Your task to perform on an android device: Open display settings Image 0: 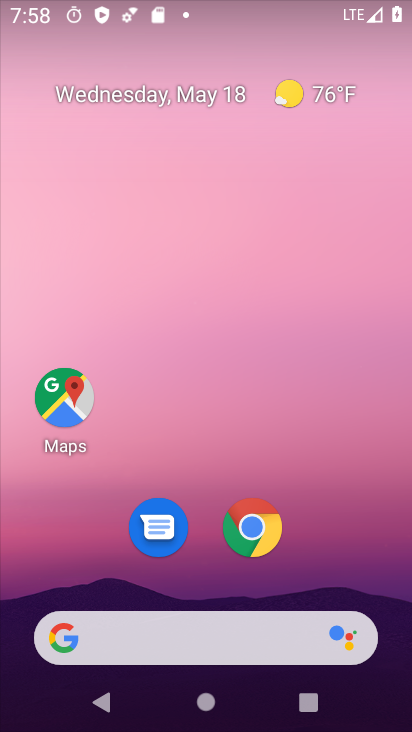
Step 0: drag from (391, 694) to (354, 136)
Your task to perform on an android device: Open display settings Image 1: 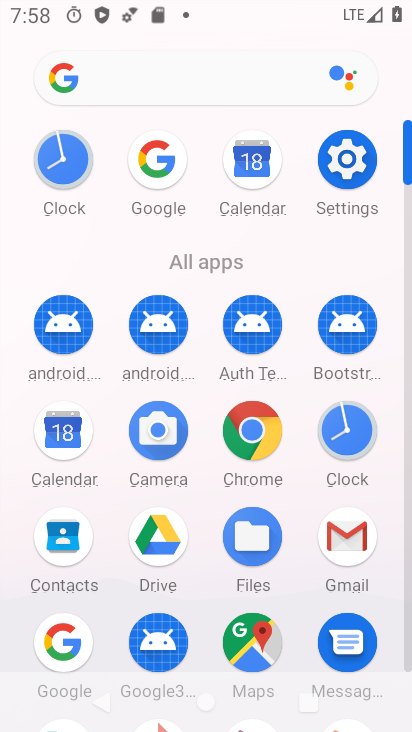
Step 1: click (340, 159)
Your task to perform on an android device: Open display settings Image 2: 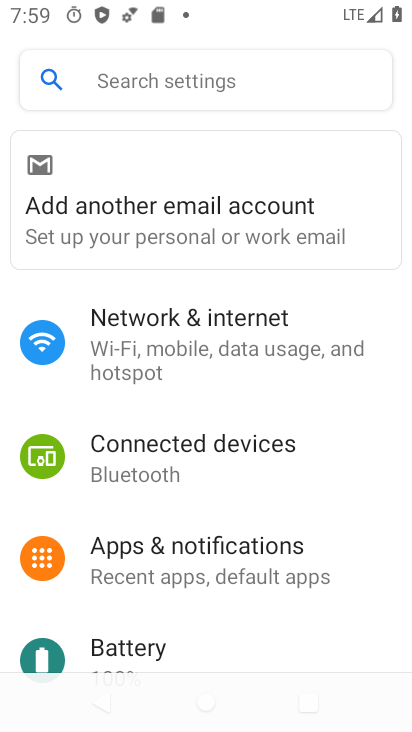
Step 2: drag from (239, 641) to (248, 333)
Your task to perform on an android device: Open display settings Image 3: 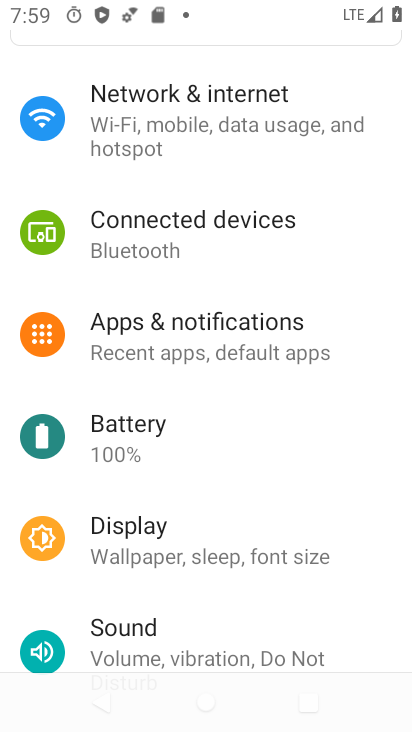
Step 3: click (91, 532)
Your task to perform on an android device: Open display settings Image 4: 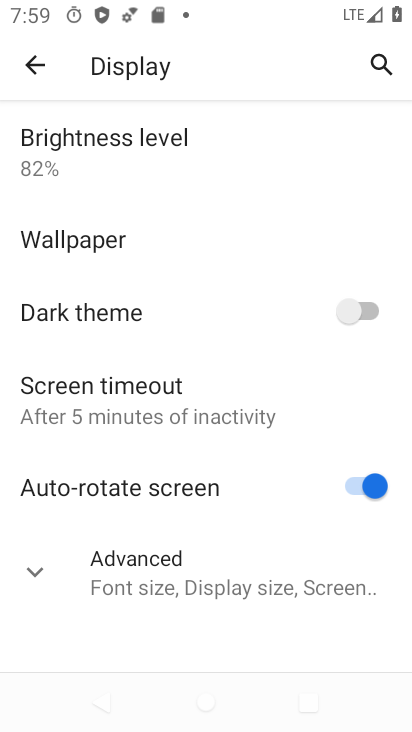
Step 4: task complete